Your task to perform on an android device: Search for the best vacuum on Walmart Image 0: 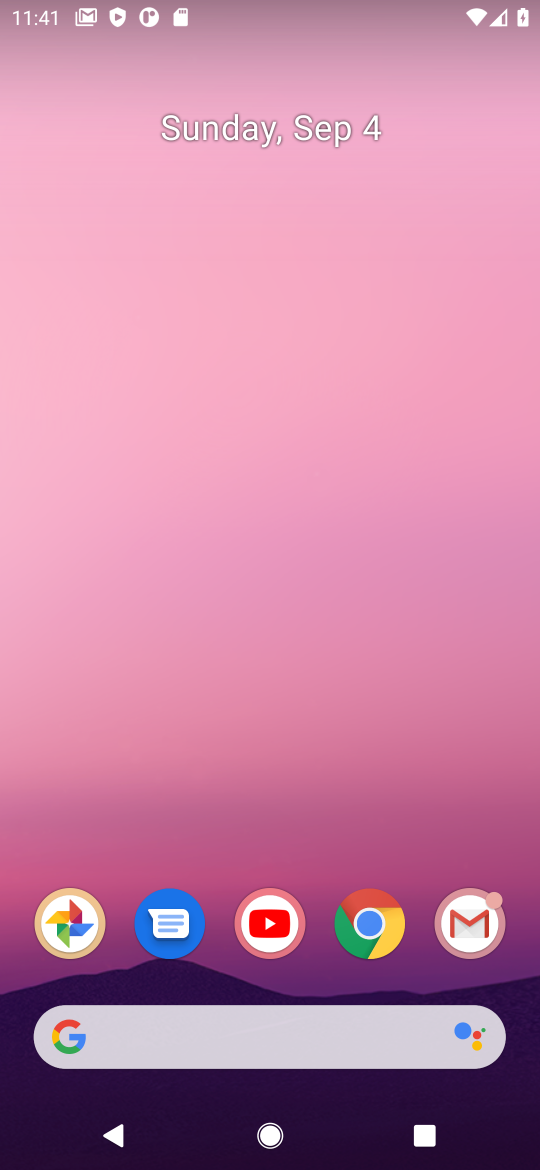
Step 0: click (355, 934)
Your task to perform on an android device: Search for the best vacuum on Walmart Image 1: 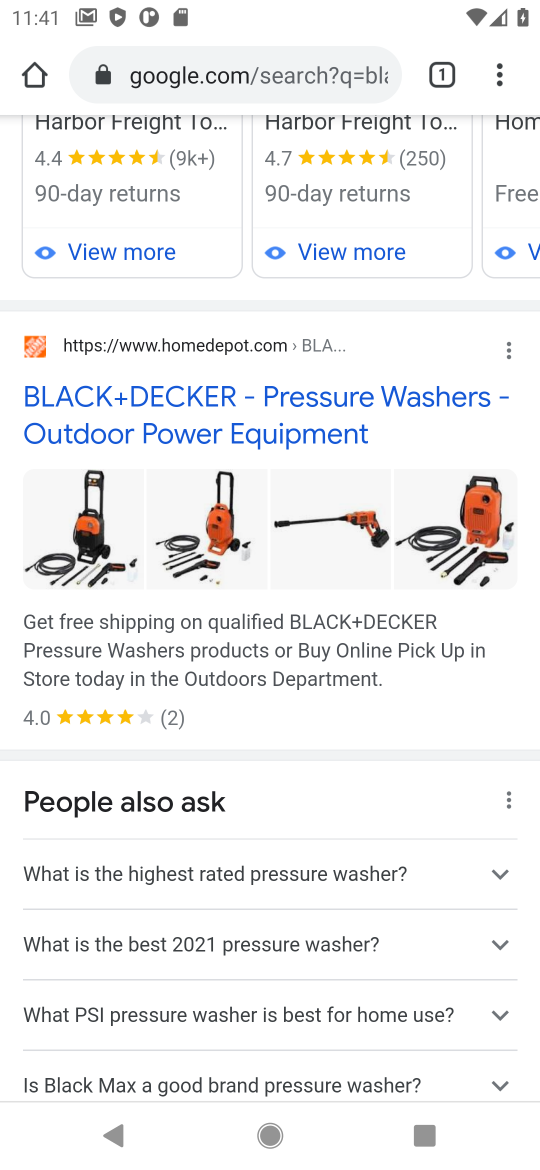
Step 1: click (273, 79)
Your task to perform on an android device: Search for the best vacuum on Walmart Image 2: 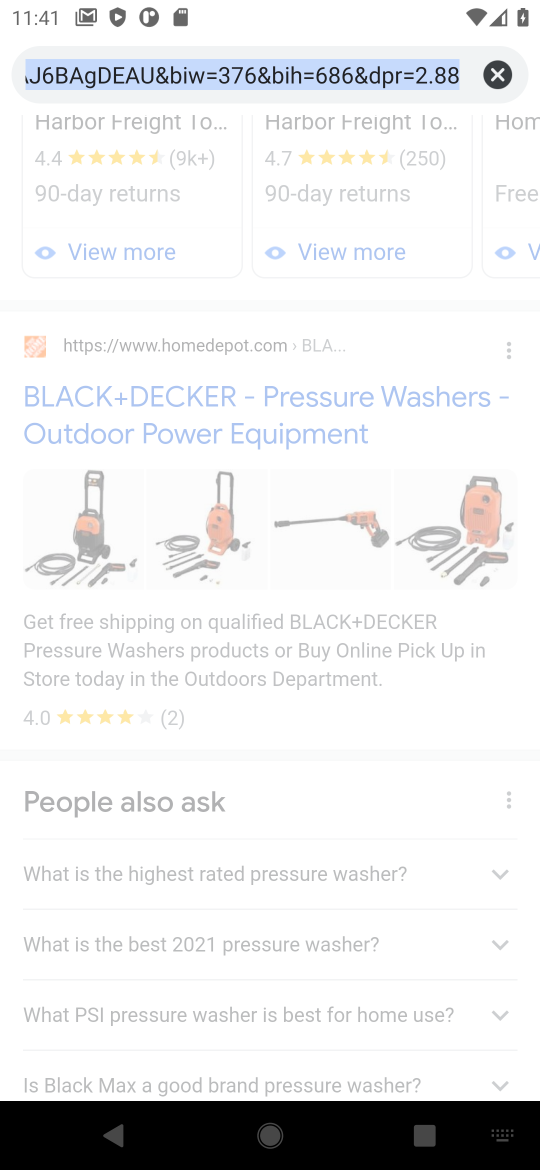
Step 2: click (490, 73)
Your task to perform on an android device: Search for the best vacuum on Walmart Image 3: 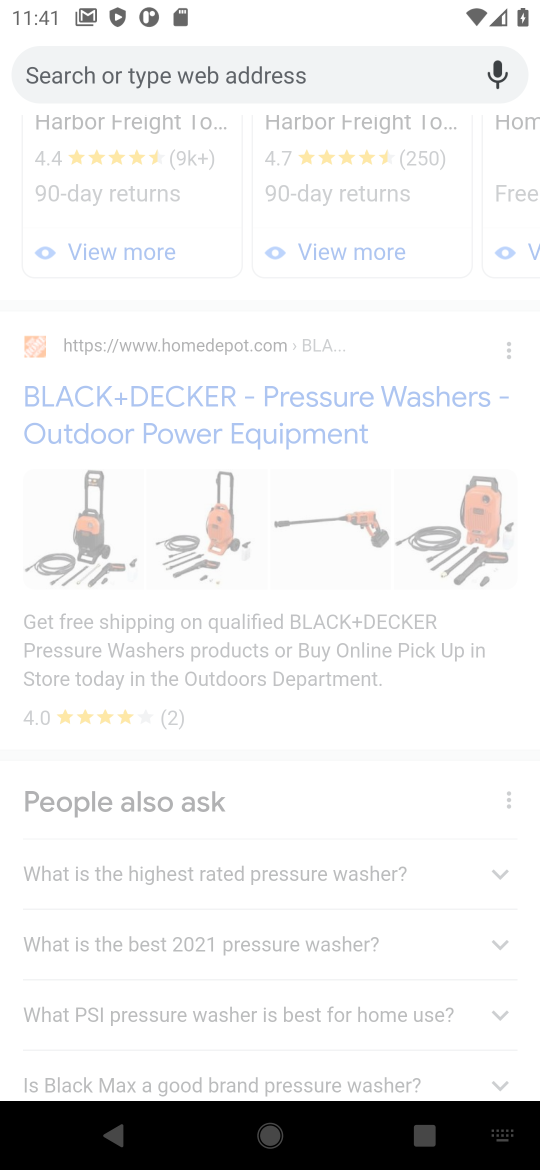
Step 3: type "the best vacuum on Walmart"
Your task to perform on an android device: Search for the best vacuum on Walmart Image 4: 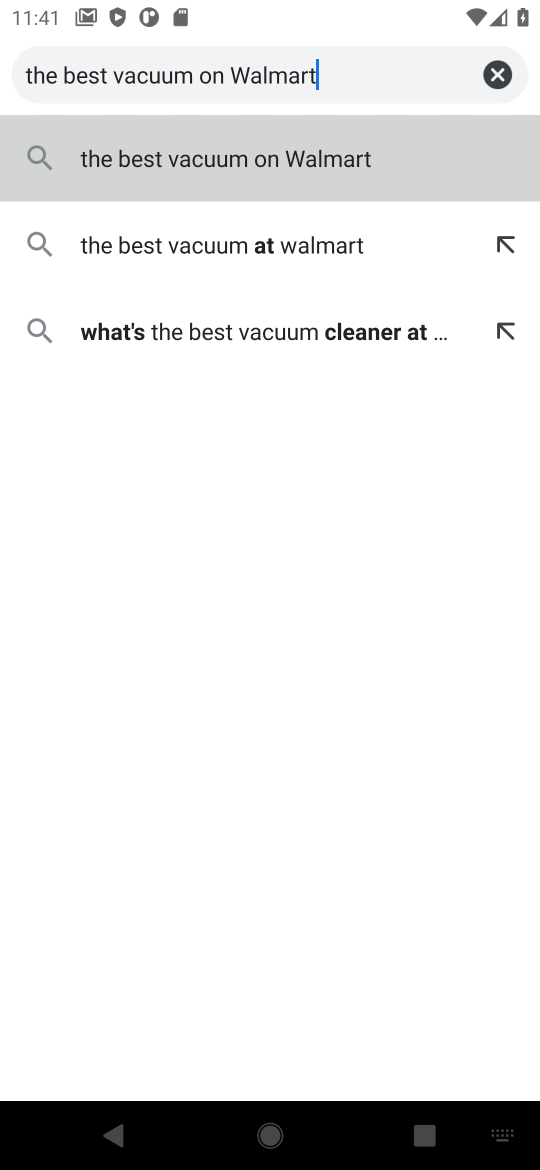
Step 4: click (322, 152)
Your task to perform on an android device: Search for the best vacuum on Walmart Image 5: 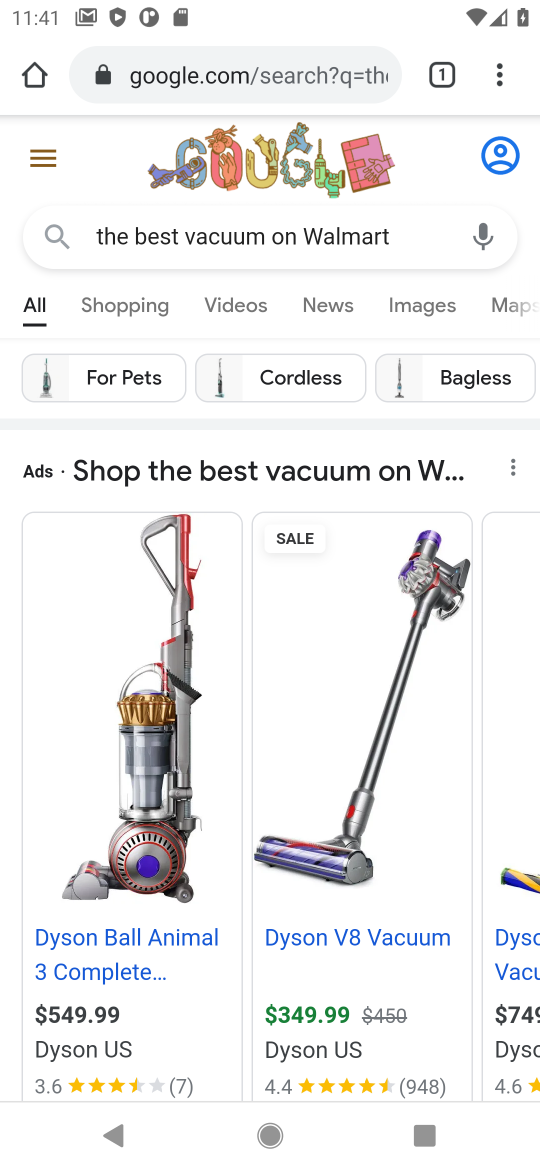
Step 5: task complete